Your task to perform on an android device: Show me recent news Image 0: 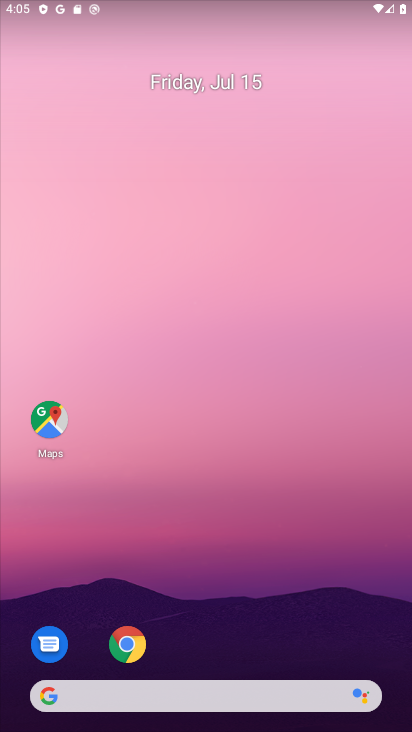
Step 0: drag from (190, 677) to (191, 179)
Your task to perform on an android device: Show me recent news Image 1: 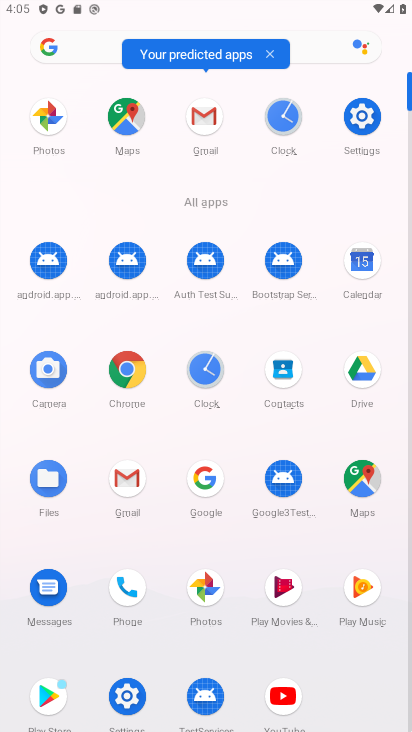
Step 1: click (193, 486)
Your task to perform on an android device: Show me recent news Image 2: 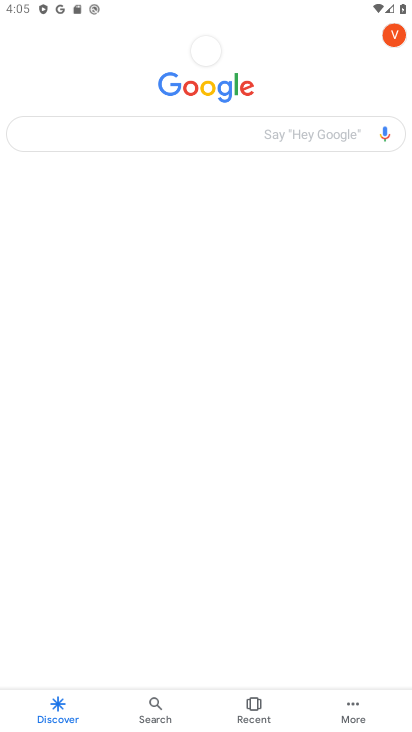
Step 2: click (203, 137)
Your task to perform on an android device: Show me recent news Image 3: 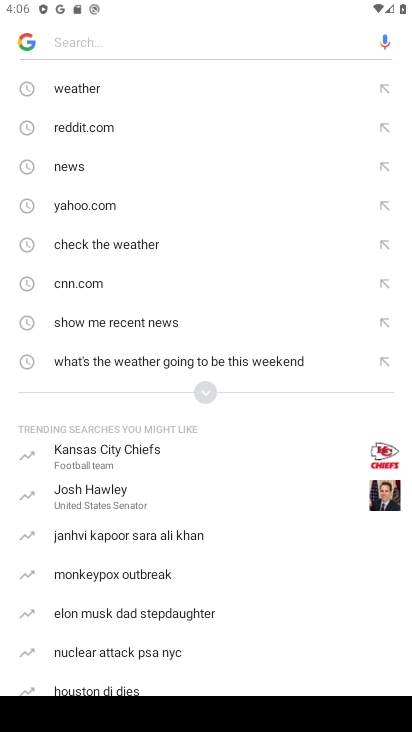
Step 3: click (75, 175)
Your task to perform on an android device: Show me recent news Image 4: 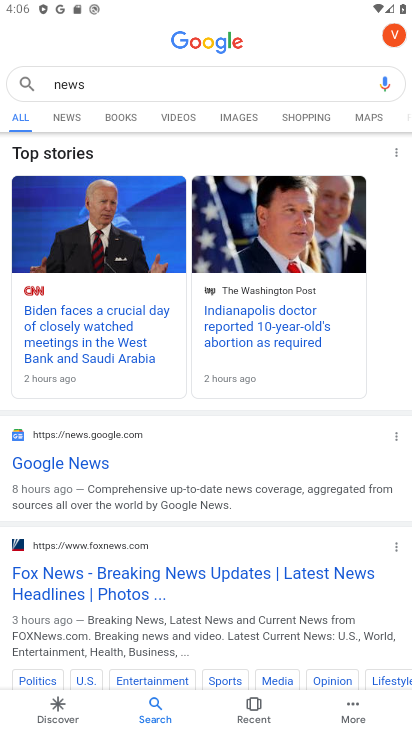
Step 4: task complete